Your task to perform on an android device: change the clock style Image 0: 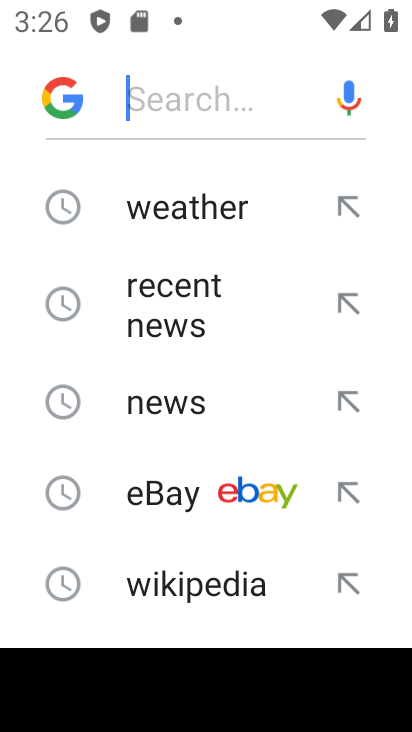
Step 0: press home button
Your task to perform on an android device: change the clock style Image 1: 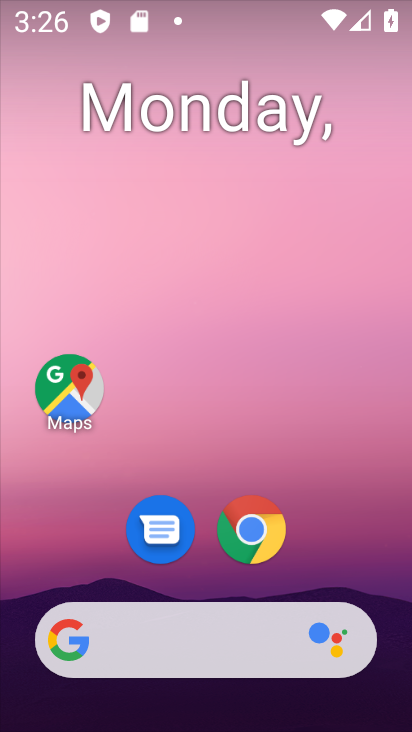
Step 1: drag from (217, 603) to (9, 6)
Your task to perform on an android device: change the clock style Image 2: 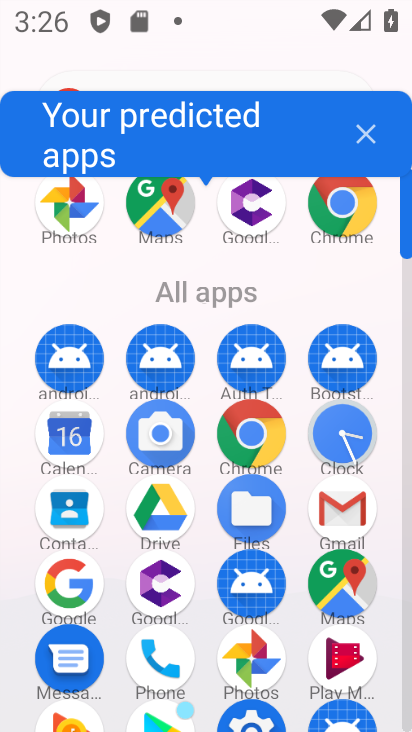
Step 2: drag from (245, 574) to (228, 164)
Your task to perform on an android device: change the clock style Image 3: 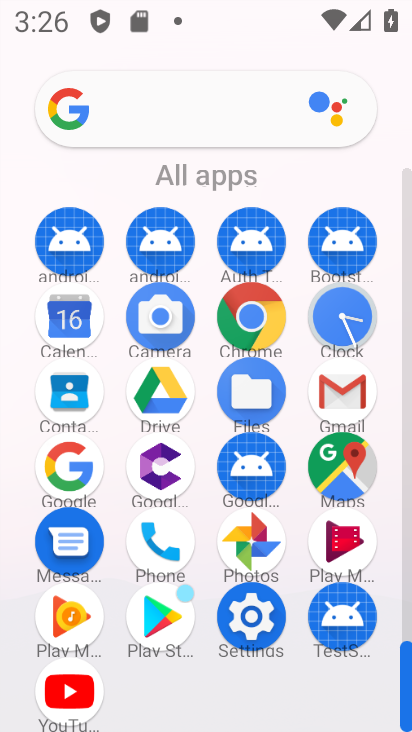
Step 3: click (368, 334)
Your task to perform on an android device: change the clock style Image 4: 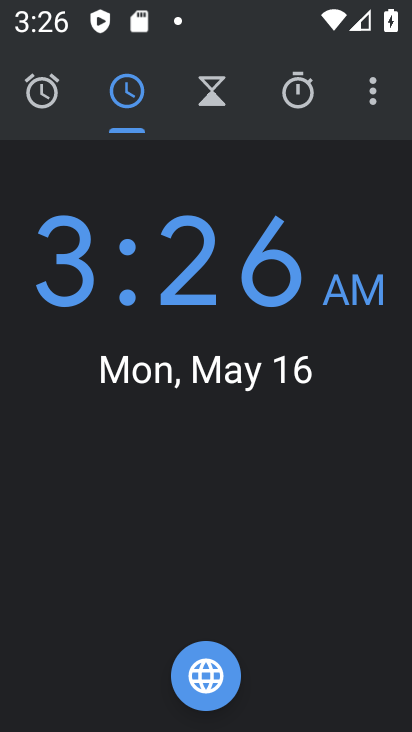
Step 4: click (375, 90)
Your task to perform on an android device: change the clock style Image 5: 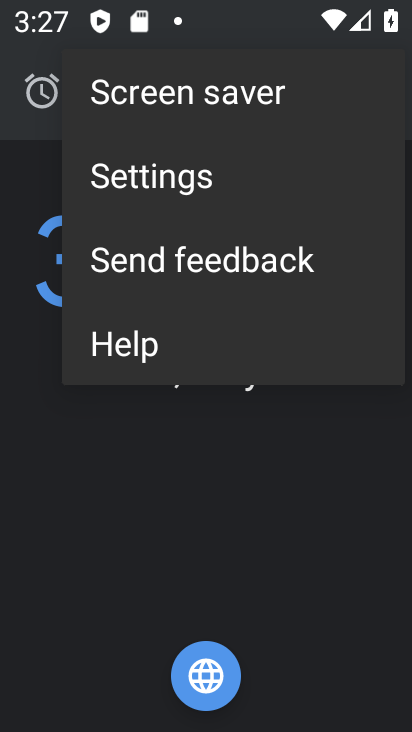
Step 5: click (166, 173)
Your task to perform on an android device: change the clock style Image 6: 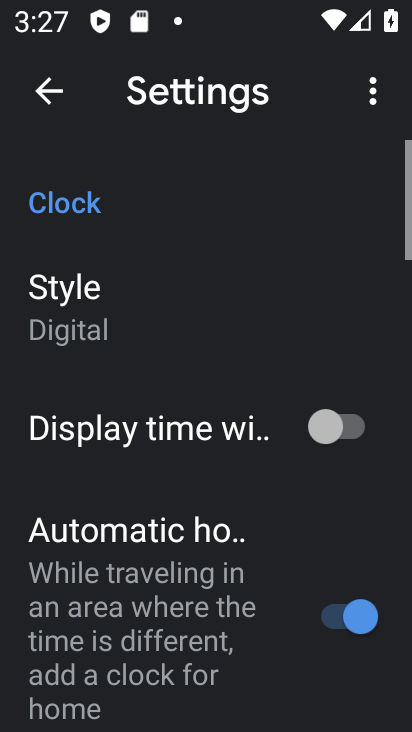
Step 6: click (98, 283)
Your task to perform on an android device: change the clock style Image 7: 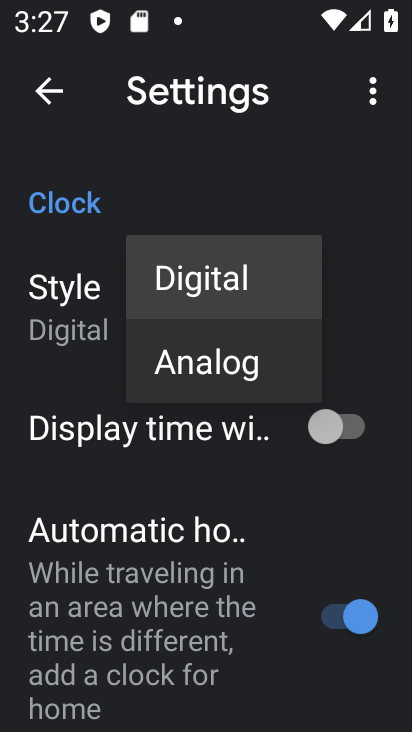
Step 7: click (220, 374)
Your task to perform on an android device: change the clock style Image 8: 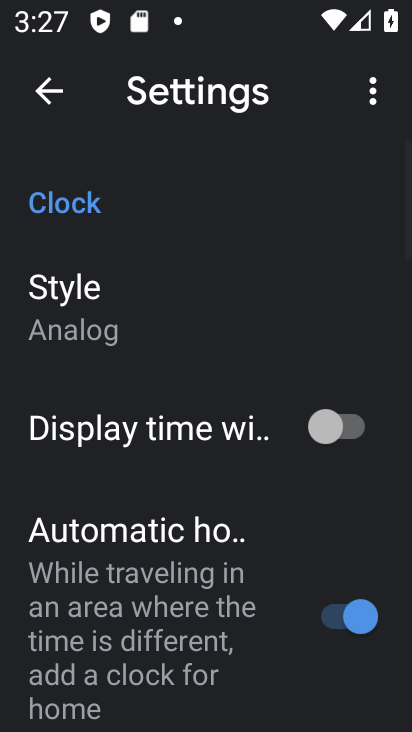
Step 8: task complete